Your task to perform on an android device: turn off sleep mode Image 0: 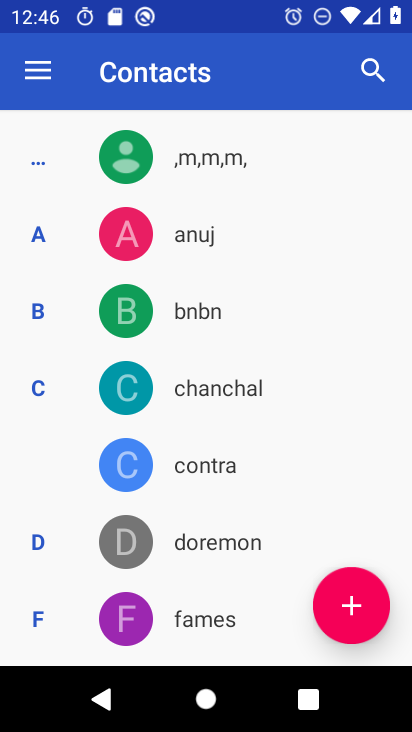
Step 0: press home button
Your task to perform on an android device: turn off sleep mode Image 1: 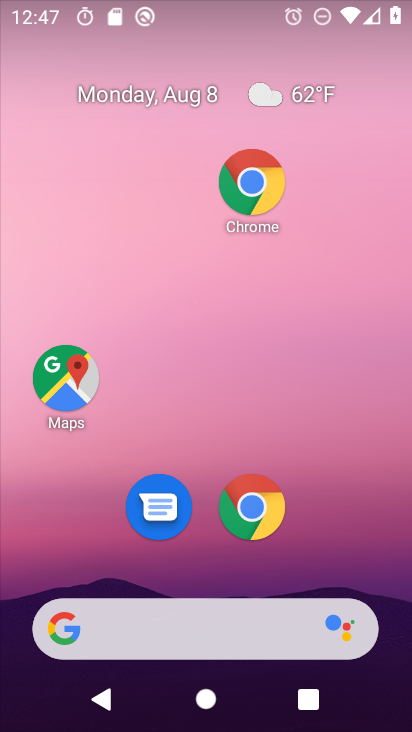
Step 1: drag from (349, 498) to (354, 7)
Your task to perform on an android device: turn off sleep mode Image 2: 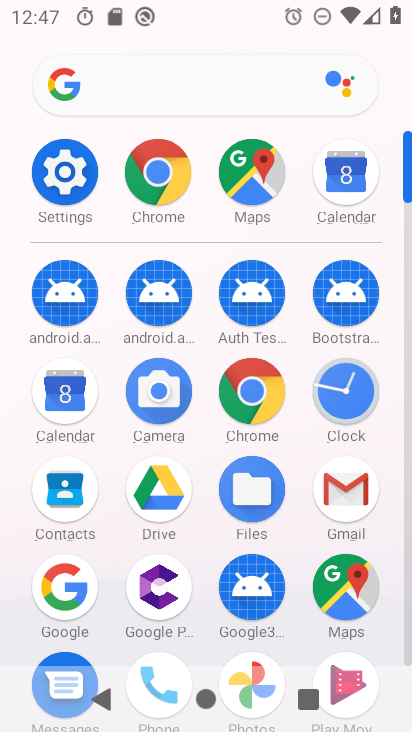
Step 2: click (68, 163)
Your task to perform on an android device: turn off sleep mode Image 3: 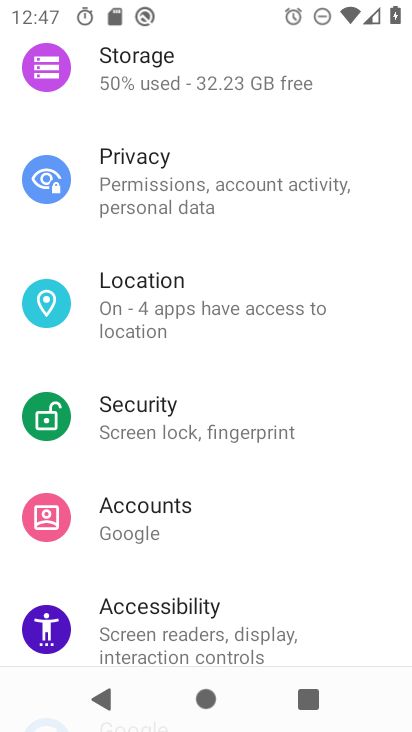
Step 3: drag from (260, 281) to (230, 551)
Your task to perform on an android device: turn off sleep mode Image 4: 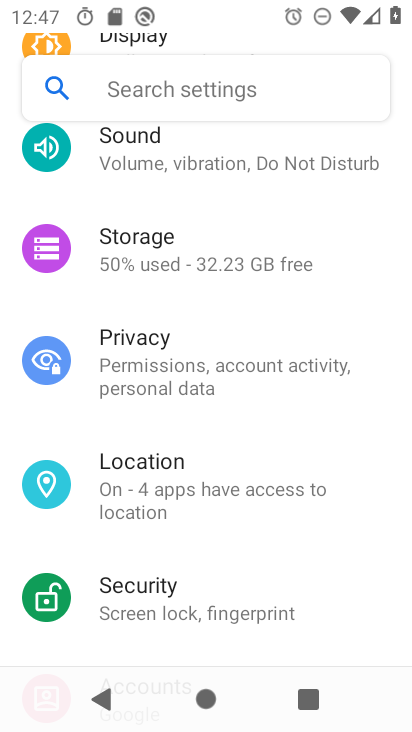
Step 4: drag from (201, 119) to (193, 498)
Your task to perform on an android device: turn off sleep mode Image 5: 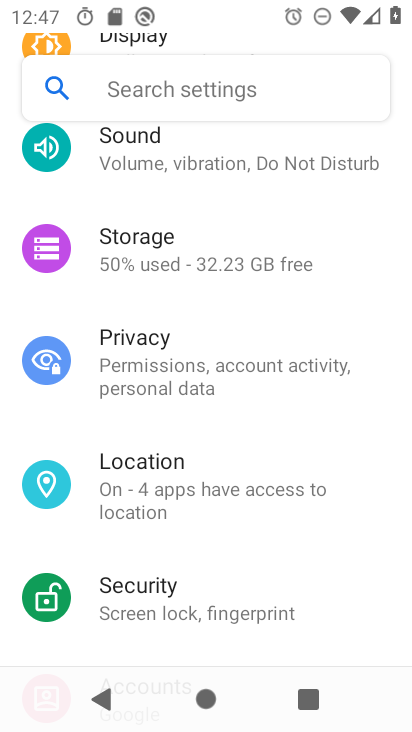
Step 5: drag from (293, 232) to (297, 573)
Your task to perform on an android device: turn off sleep mode Image 6: 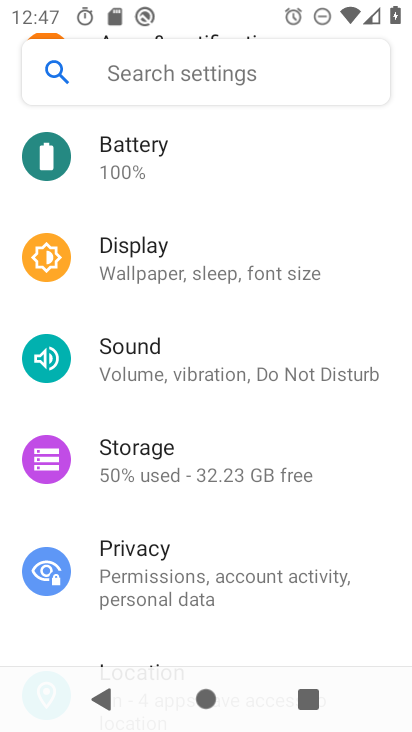
Step 6: click (193, 273)
Your task to perform on an android device: turn off sleep mode Image 7: 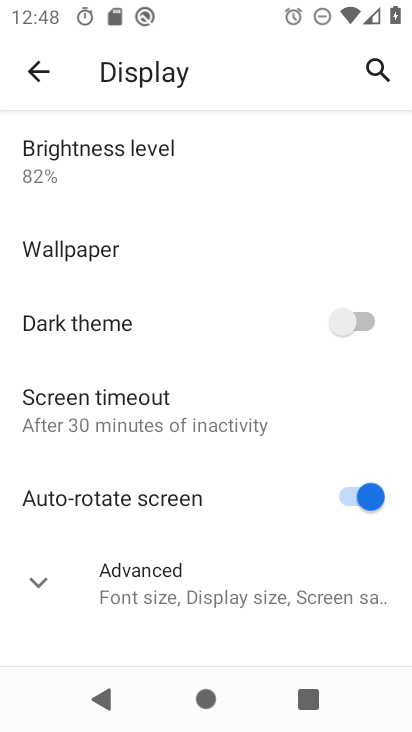
Step 7: click (140, 407)
Your task to perform on an android device: turn off sleep mode Image 8: 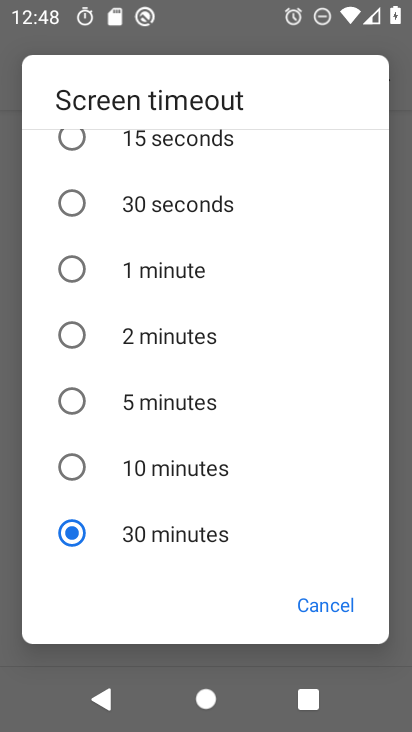
Step 8: task complete